Your task to perform on an android device: turn on sleep mode Image 0: 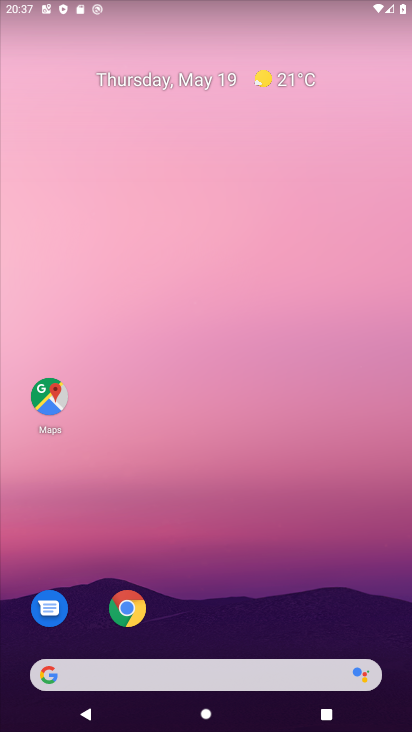
Step 0: drag from (254, 576) to (141, 127)
Your task to perform on an android device: turn on sleep mode Image 1: 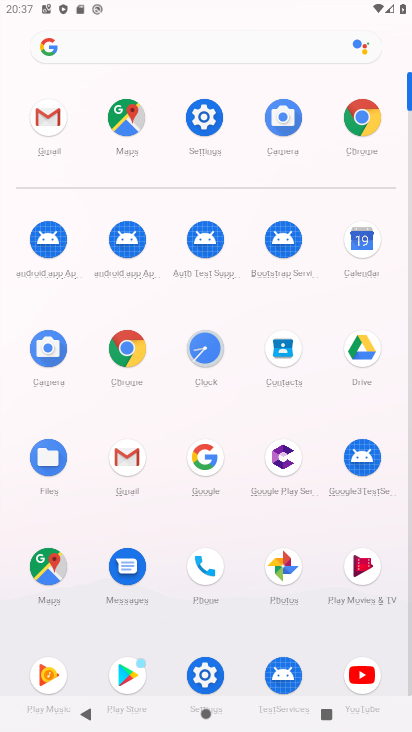
Step 1: click (197, 111)
Your task to perform on an android device: turn on sleep mode Image 2: 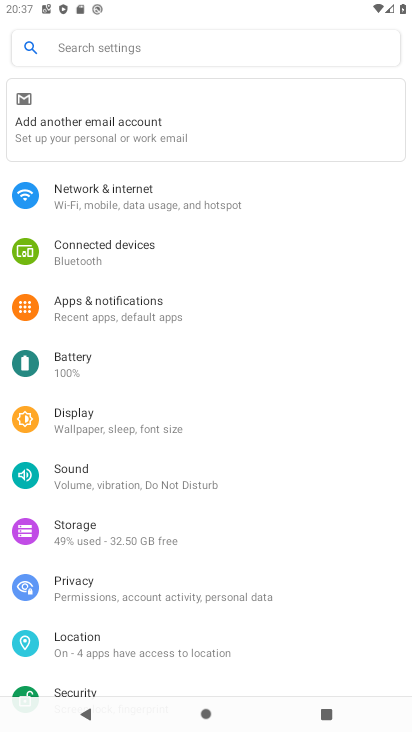
Step 2: click (103, 312)
Your task to perform on an android device: turn on sleep mode Image 3: 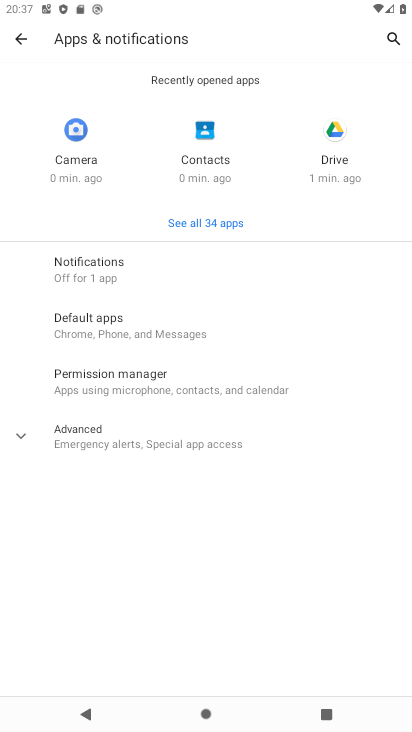
Step 3: task complete